Your task to perform on an android device: Open privacy settings Image 0: 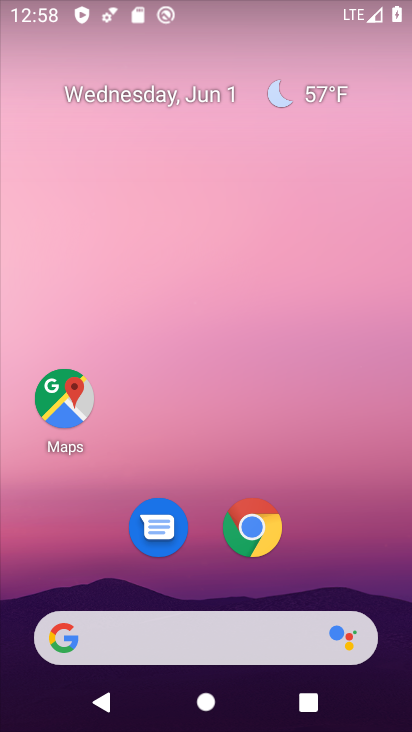
Step 0: drag from (240, 633) to (262, 234)
Your task to perform on an android device: Open privacy settings Image 1: 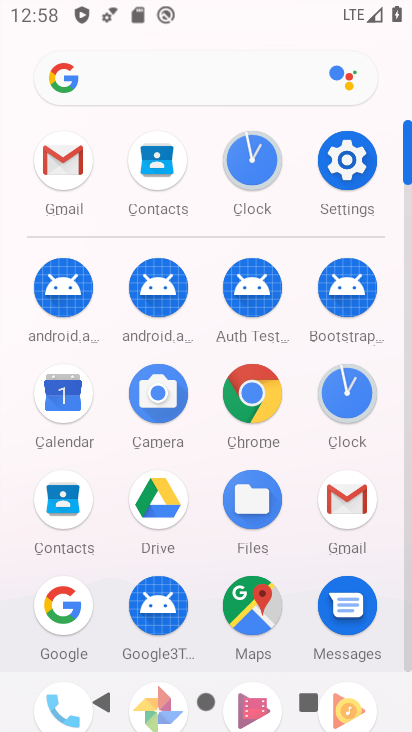
Step 1: click (368, 169)
Your task to perform on an android device: Open privacy settings Image 2: 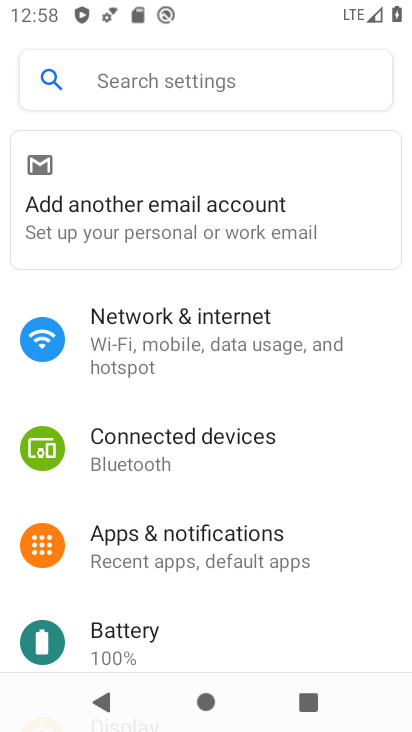
Step 2: drag from (214, 555) to (244, 202)
Your task to perform on an android device: Open privacy settings Image 3: 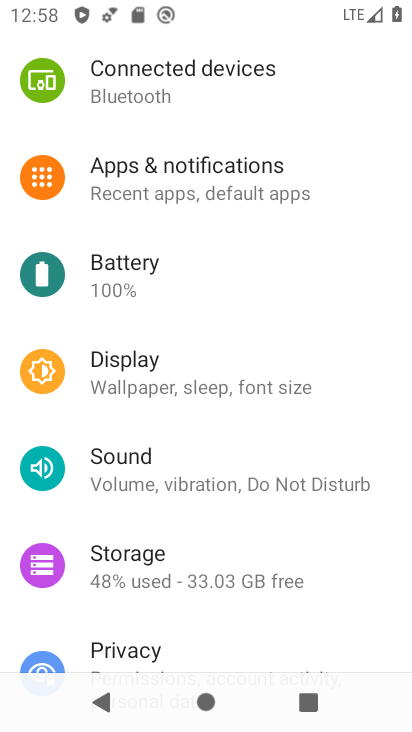
Step 3: drag from (258, 453) to (260, 102)
Your task to perform on an android device: Open privacy settings Image 4: 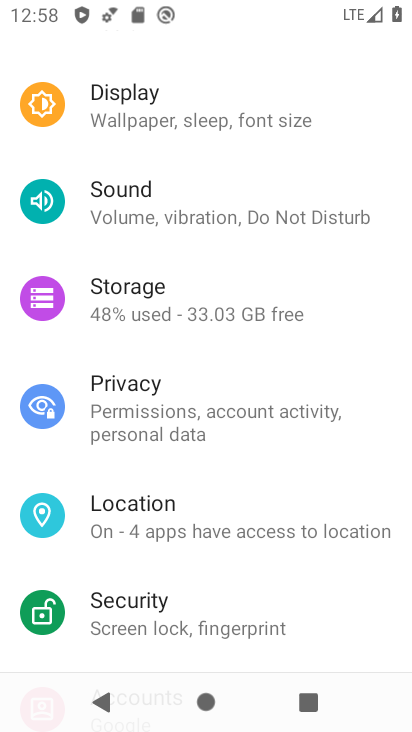
Step 4: click (205, 406)
Your task to perform on an android device: Open privacy settings Image 5: 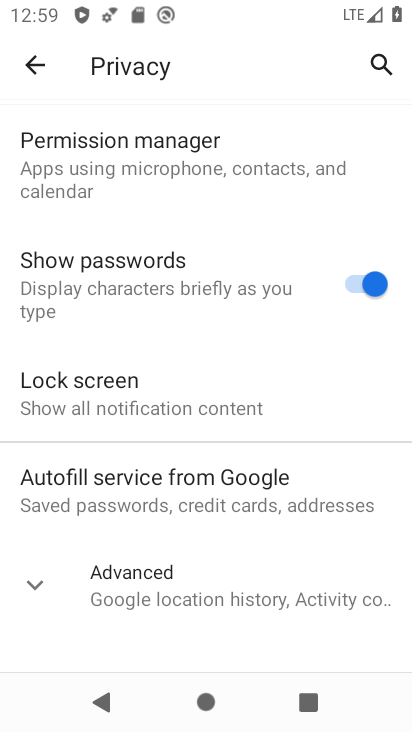
Step 5: task complete